Your task to perform on an android device: toggle translation in the chrome app Image 0: 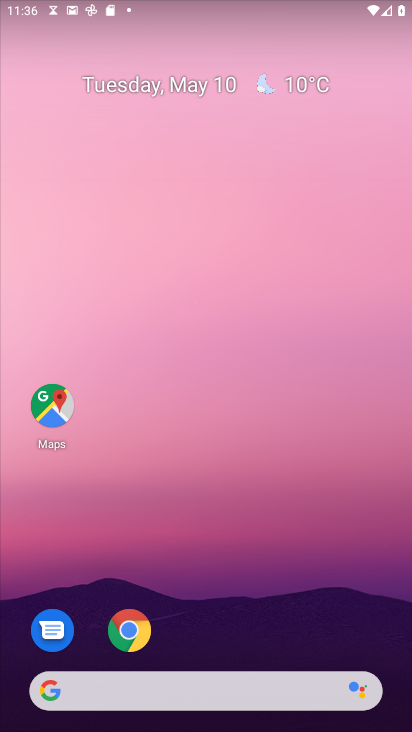
Step 0: click (132, 626)
Your task to perform on an android device: toggle translation in the chrome app Image 1: 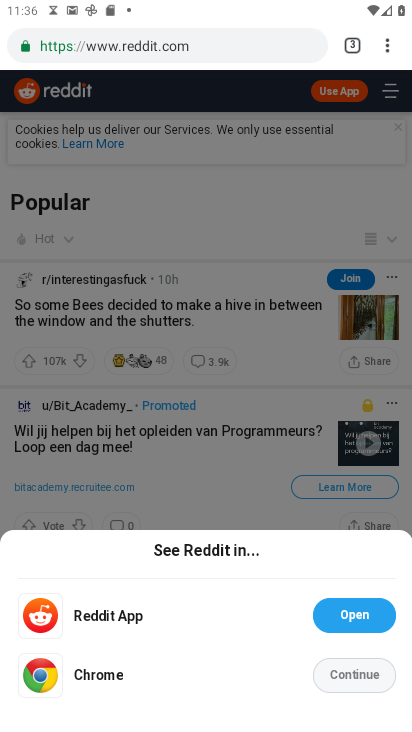
Step 1: click (391, 43)
Your task to perform on an android device: toggle translation in the chrome app Image 2: 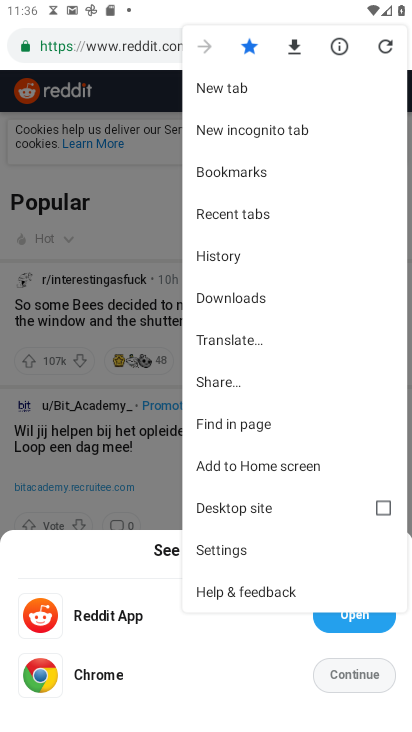
Step 2: click (258, 549)
Your task to perform on an android device: toggle translation in the chrome app Image 3: 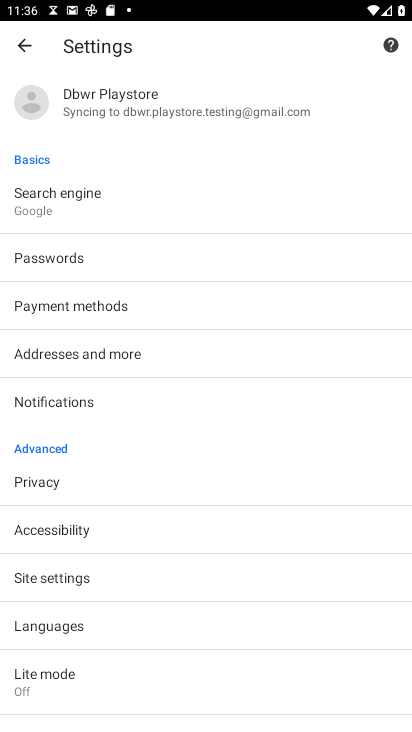
Step 3: click (101, 622)
Your task to perform on an android device: toggle translation in the chrome app Image 4: 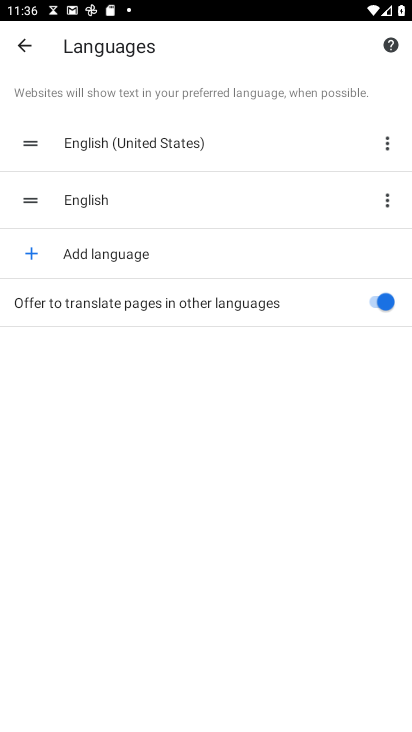
Step 4: click (371, 296)
Your task to perform on an android device: toggle translation in the chrome app Image 5: 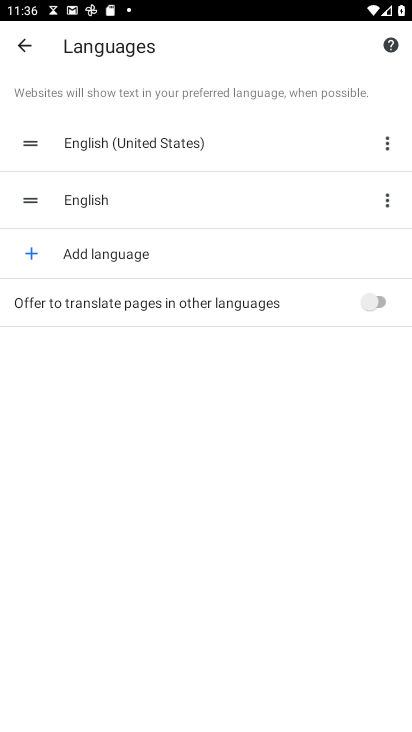
Step 5: task complete